Your task to perform on an android device: install app "Google Home" Image 0: 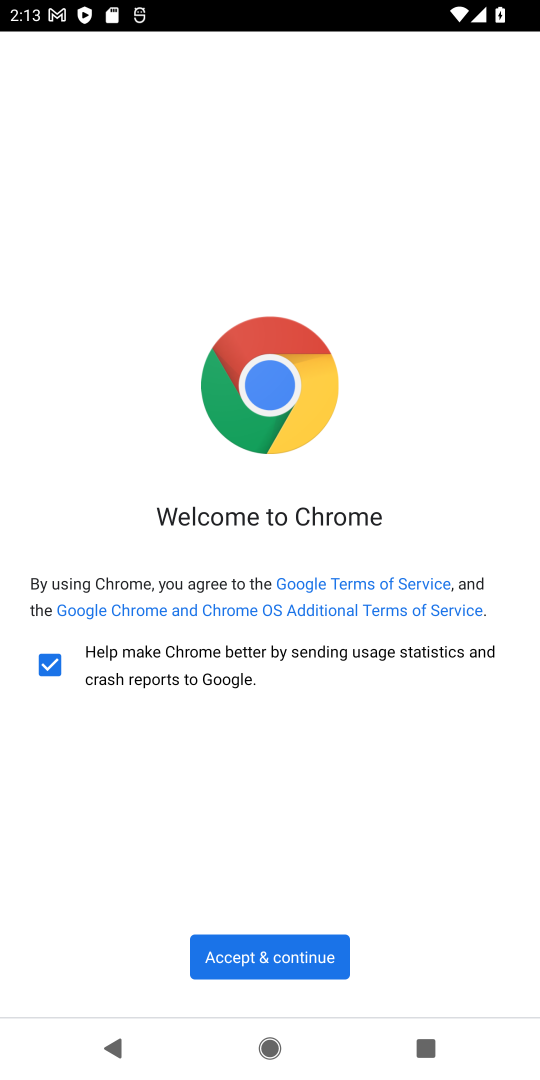
Step 0: press home button
Your task to perform on an android device: install app "Google Home" Image 1: 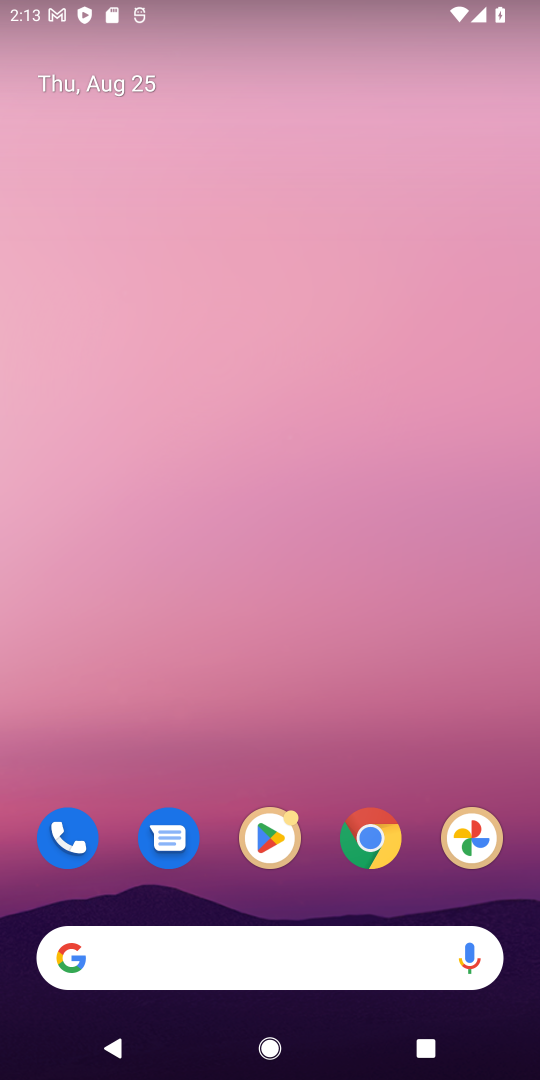
Step 1: click (274, 837)
Your task to perform on an android device: install app "Google Home" Image 2: 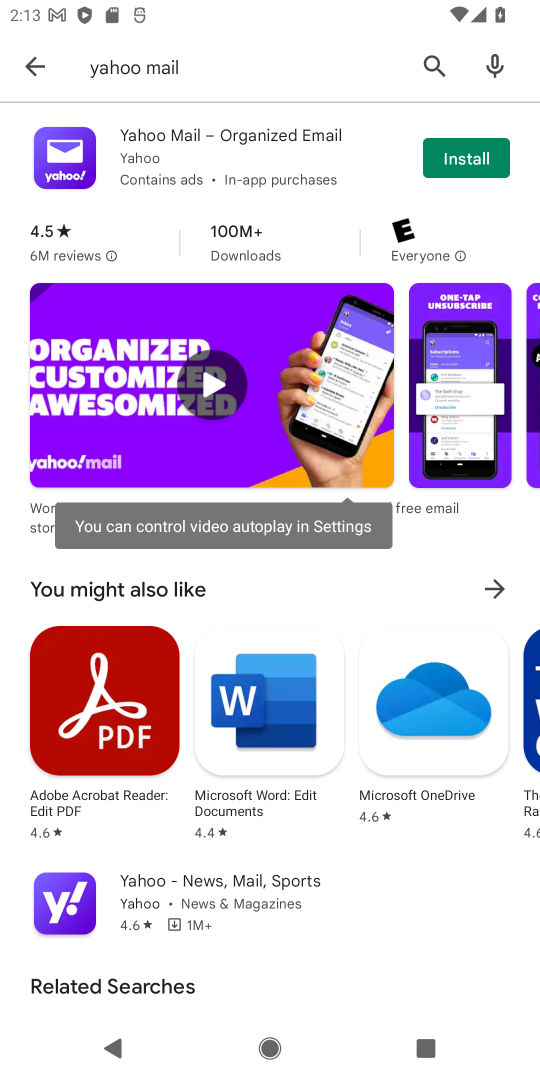
Step 2: click (34, 60)
Your task to perform on an android device: install app "Google Home" Image 3: 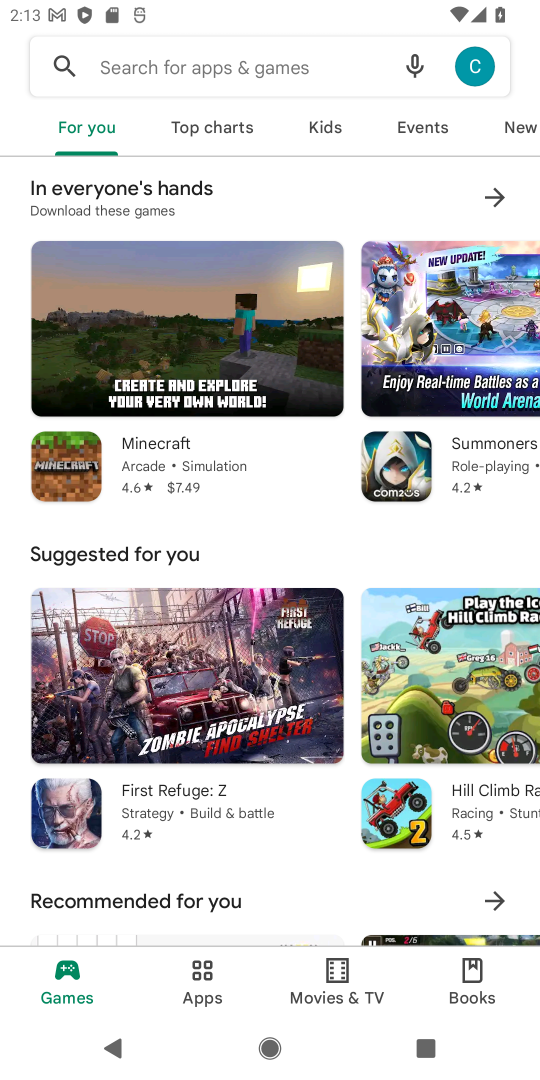
Step 3: click (197, 70)
Your task to perform on an android device: install app "Google Home" Image 4: 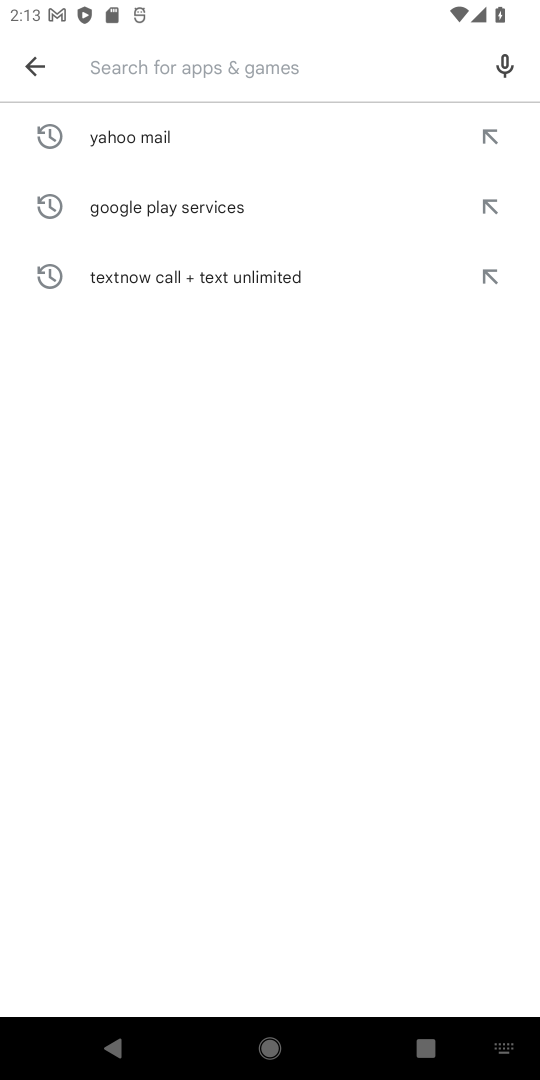
Step 4: type "Google Home"
Your task to perform on an android device: install app "Google Home" Image 5: 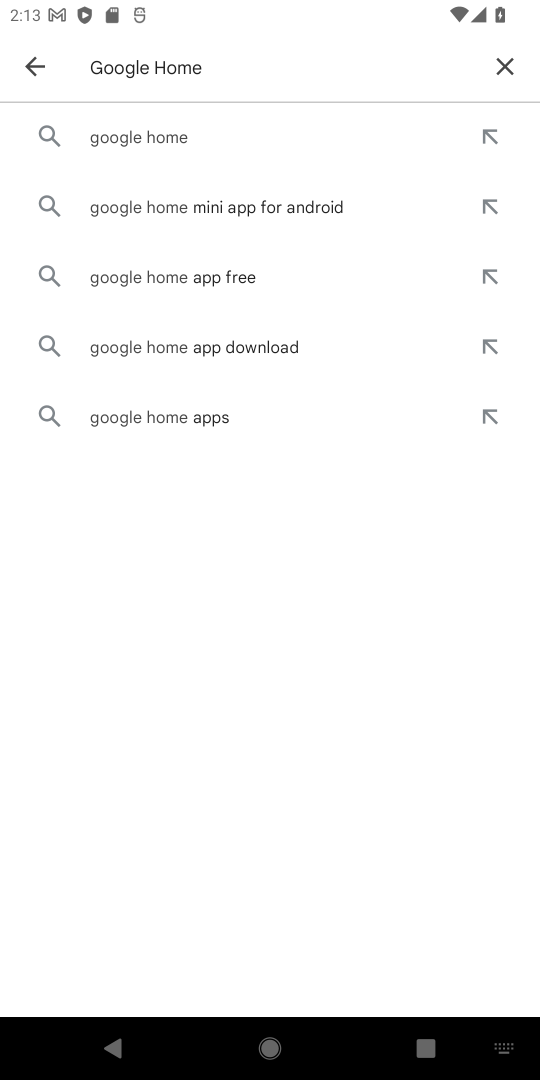
Step 5: click (133, 144)
Your task to perform on an android device: install app "Google Home" Image 6: 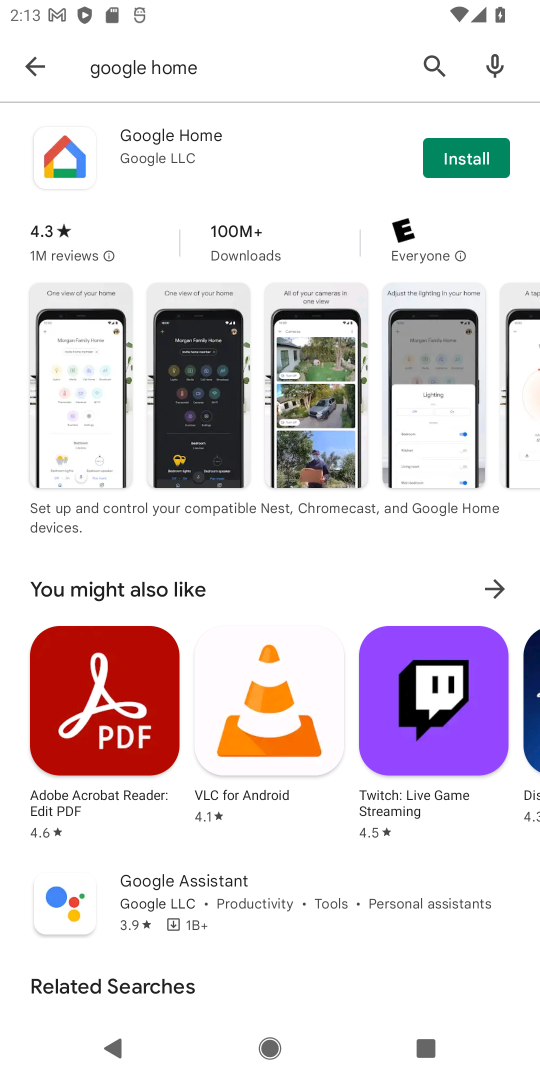
Step 6: click (448, 158)
Your task to perform on an android device: install app "Google Home" Image 7: 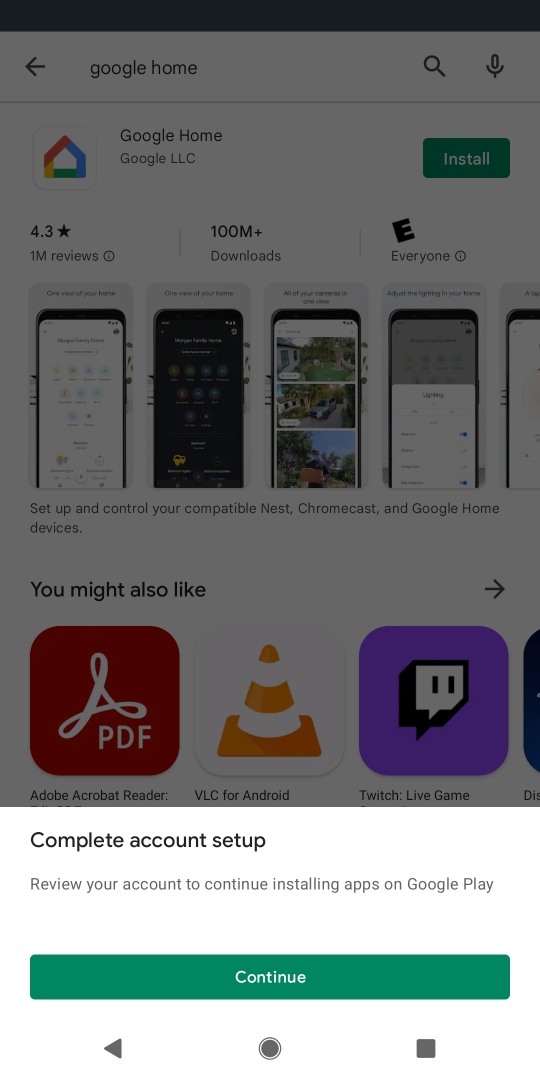
Step 7: click (260, 958)
Your task to perform on an android device: install app "Google Home" Image 8: 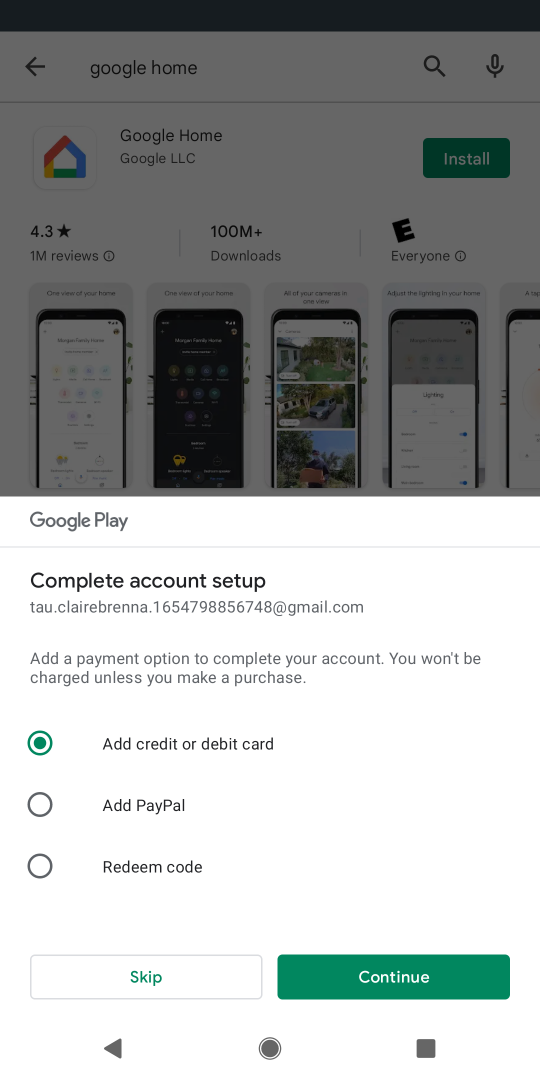
Step 8: click (140, 982)
Your task to perform on an android device: install app "Google Home" Image 9: 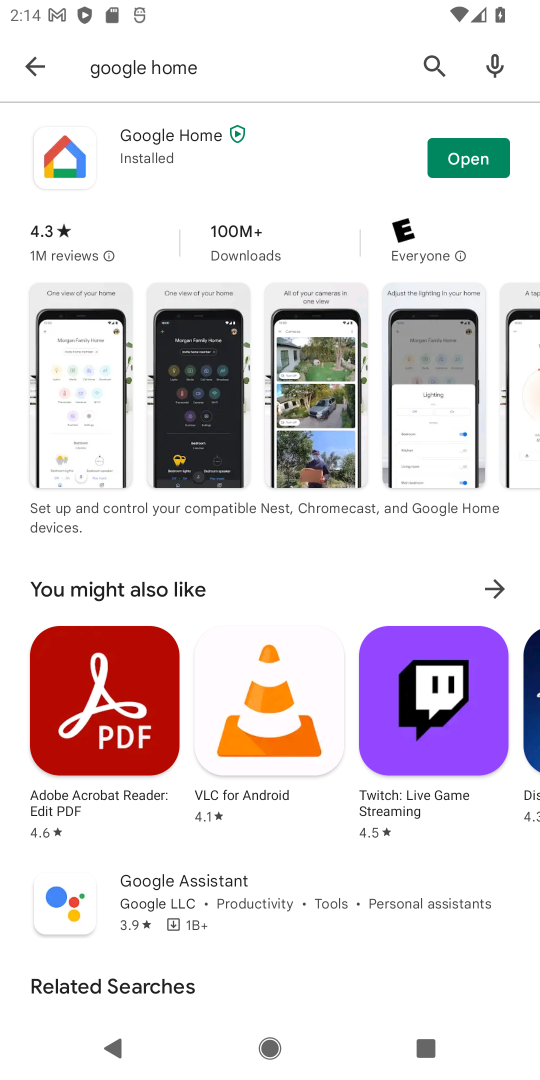
Step 9: click (455, 157)
Your task to perform on an android device: install app "Google Home" Image 10: 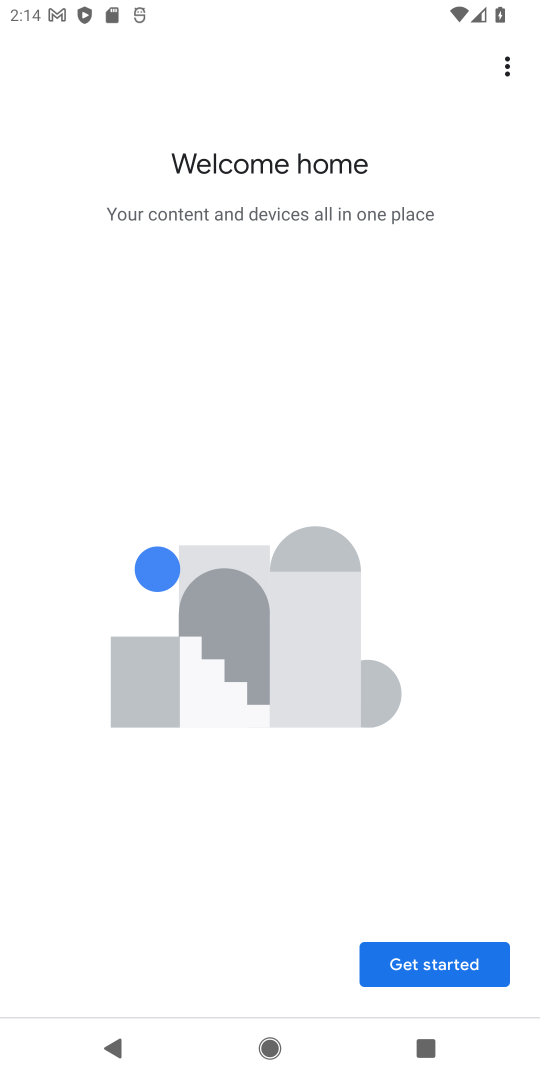
Step 10: click (402, 971)
Your task to perform on an android device: install app "Google Home" Image 11: 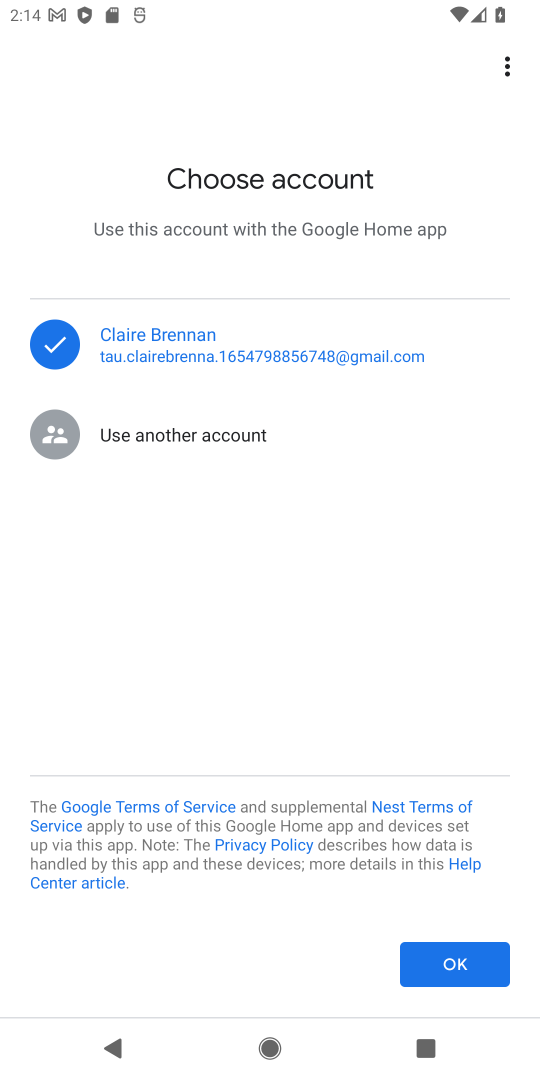
Step 11: click (428, 975)
Your task to perform on an android device: install app "Google Home" Image 12: 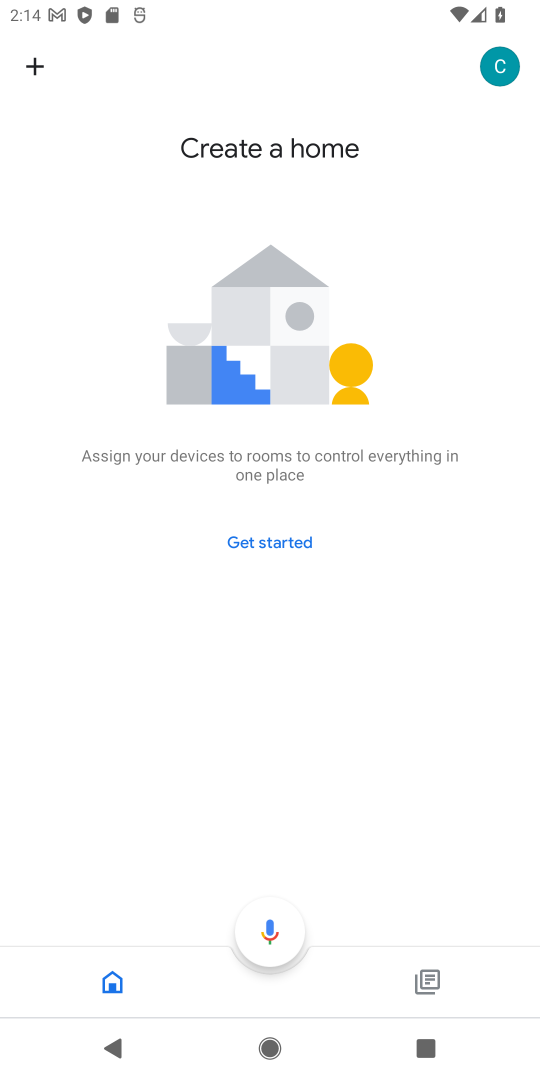
Step 12: task complete